Your task to perform on an android device: Open Google Chrome and open the bookmarks view Image 0: 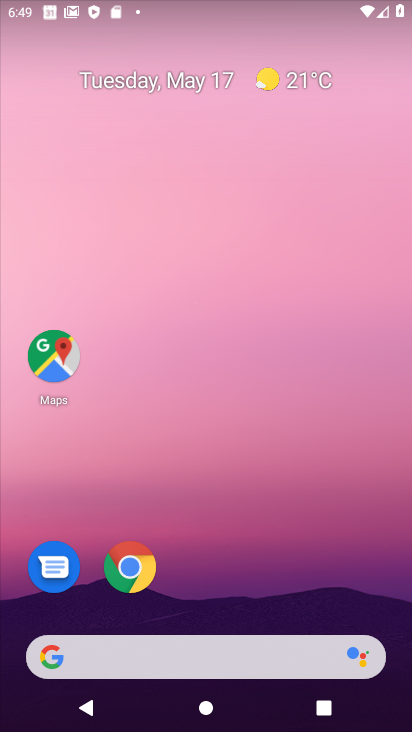
Step 0: click (132, 565)
Your task to perform on an android device: Open Google Chrome and open the bookmarks view Image 1: 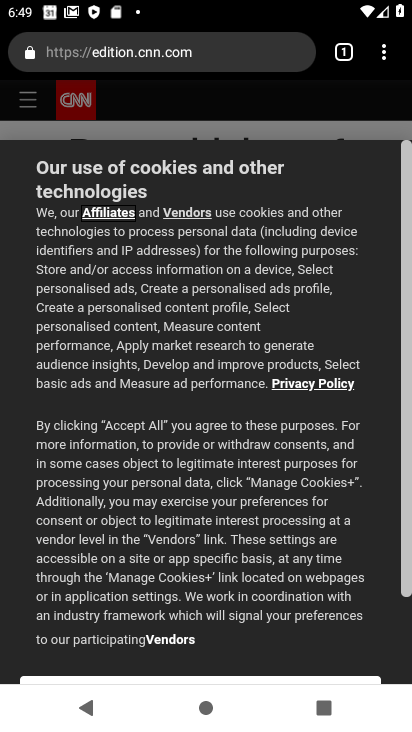
Step 1: click (383, 54)
Your task to perform on an android device: Open Google Chrome and open the bookmarks view Image 2: 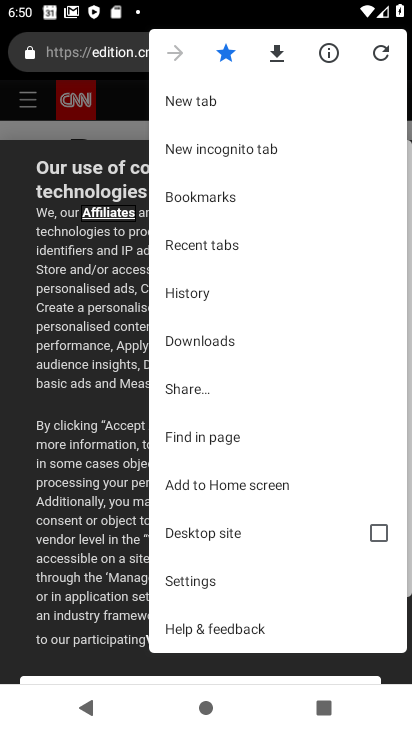
Step 2: click (214, 192)
Your task to perform on an android device: Open Google Chrome and open the bookmarks view Image 3: 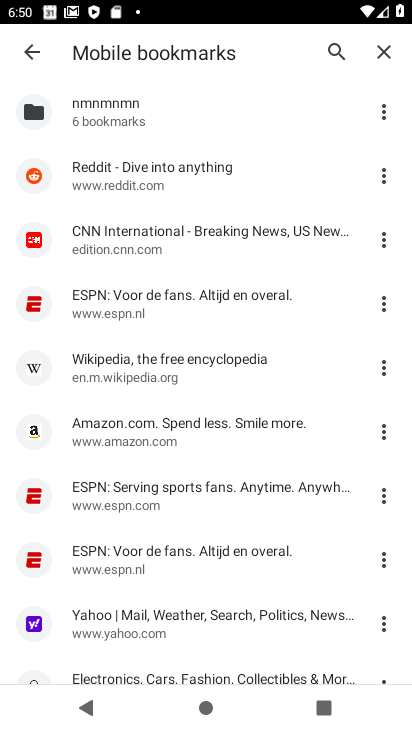
Step 3: click (385, 114)
Your task to perform on an android device: Open Google Chrome and open the bookmarks view Image 4: 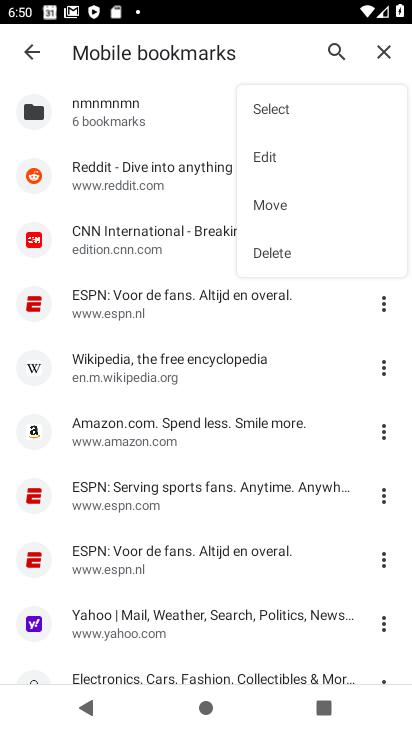
Step 4: click (273, 149)
Your task to perform on an android device: Open Google Chrome and open the bookmarks view Image 5: 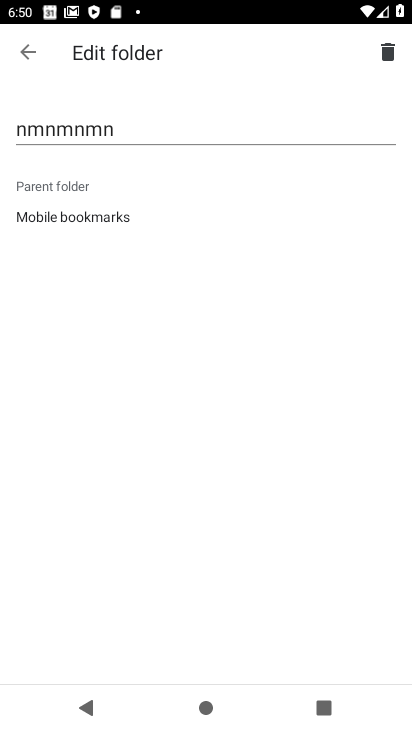
Step 5: task complete